Your task to perform on an android device: open a new tab in the chrome app Image 0: 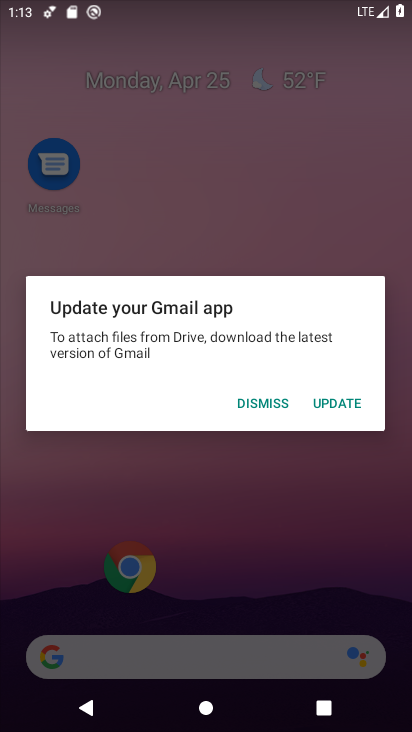
Step 0: press home button
Your task to perform on an android device: open a new tab in the chrome app Image 1: 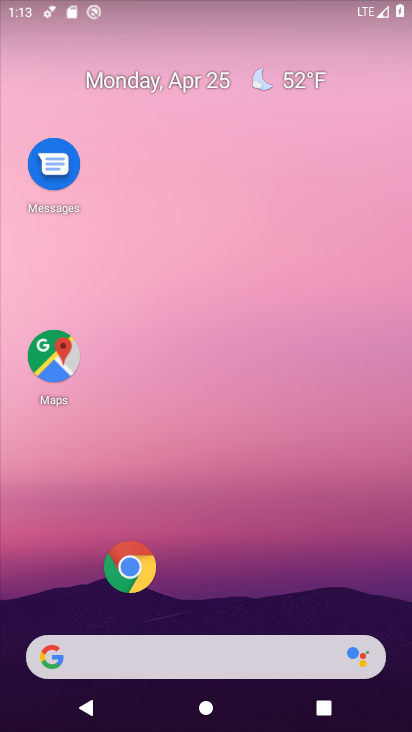
Step 1: click (150, 579)
Your task to perform on an android device: open a new tab in the chrome app Image 2: 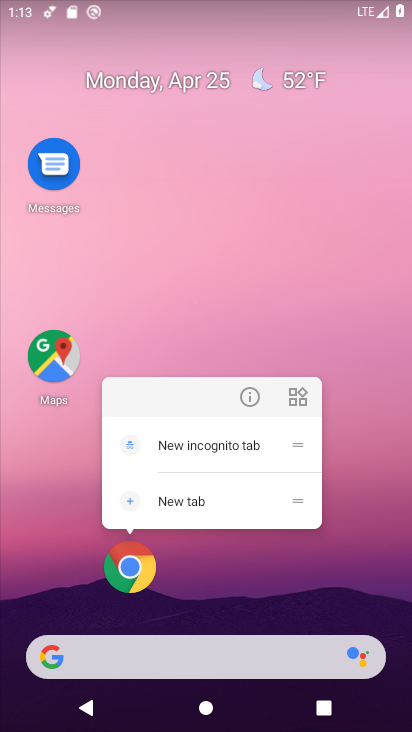
Step 2: click (109, 582)
Your task to perform on an android device: open a new tab in the chrome app Image 3: 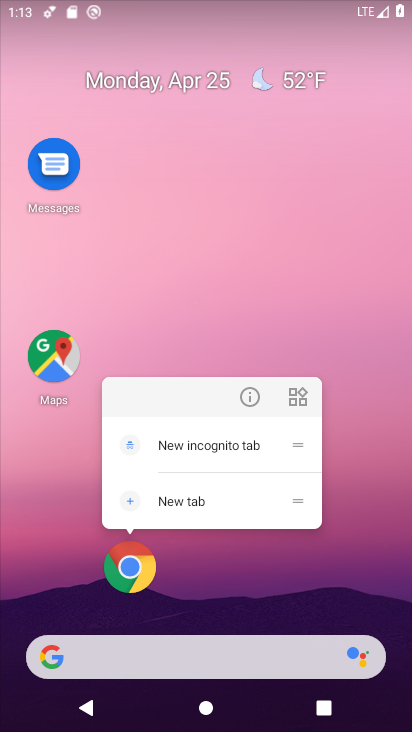
Step 3: click (107, 581)
Your task to perform on an android device: open a new tab in the chrome app Image 4: 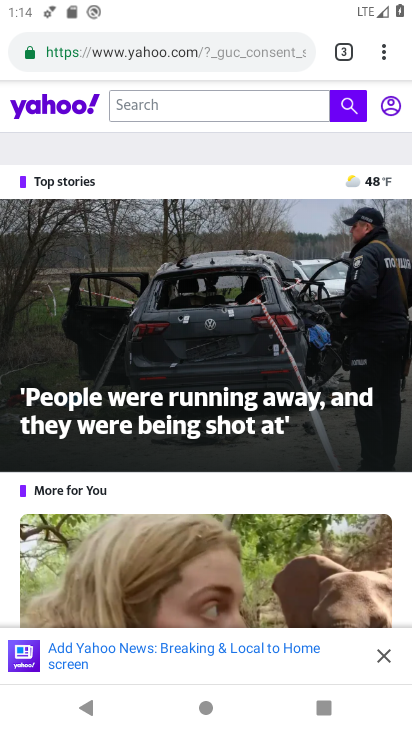
Step 4: drag from (347, 103) to (345, 335)
Your task to perform on an android device: open a new tab in the chrome app Image 5: 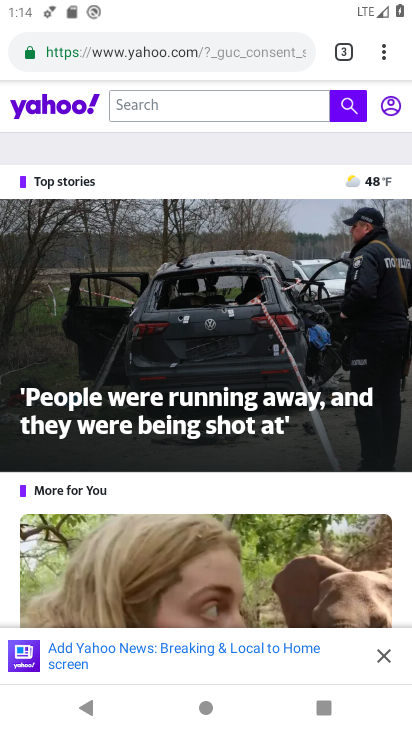
Step 5: drag from (112, 61) to (142, 279)
Your task to perform on an android device: open a new tab in the chrome app Image 6: 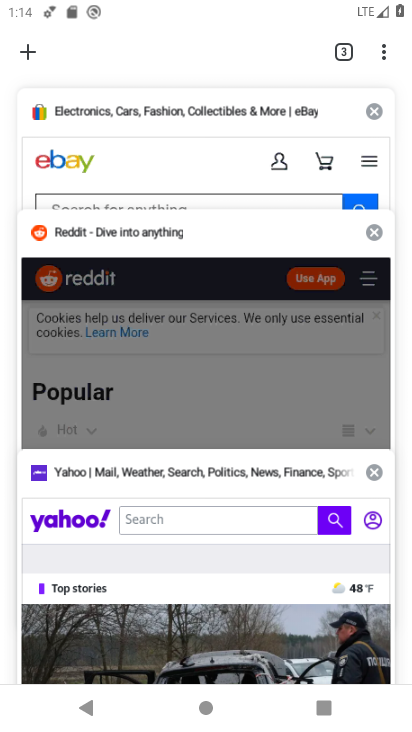
Step 6: click (33, 55)
Your task to perform on an android device: open a new tab in the chrome app Image 7: 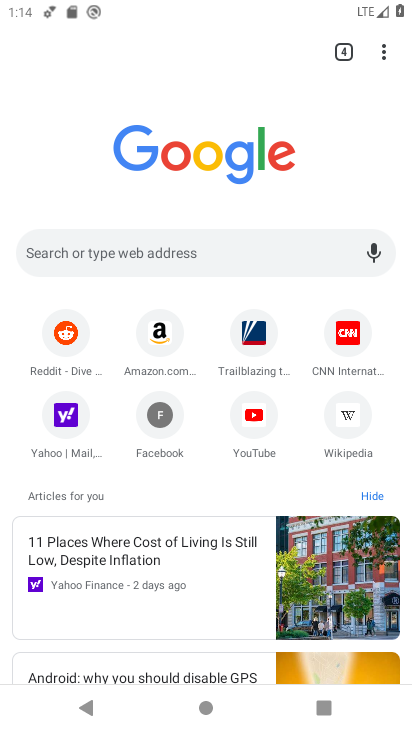
Step 7: task complete